Your task to perform on an android device: Open calendar and show me the first week of next month Image 0: 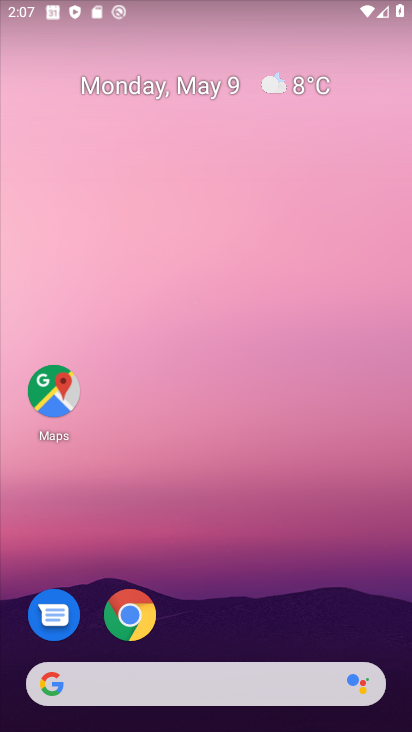
Step 0: drag from (251, 568) to (221, 148)
Your task to perform on an android device: Open calendar and show me the first week of next month Image 1: 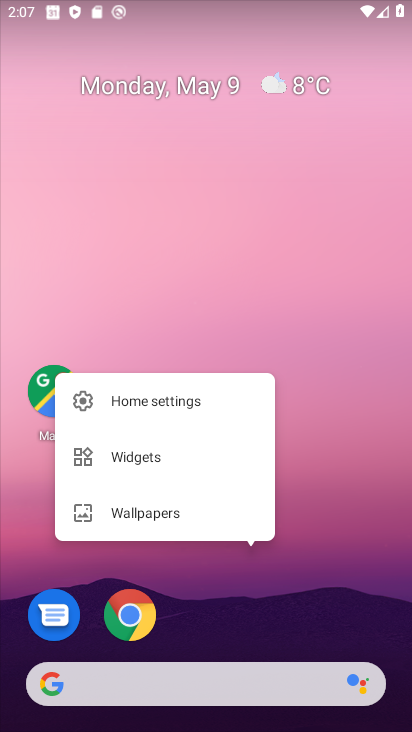
Step 1: click (250, 588)
Your task to perform on an android device: Open calendar and show me the first week of next month Image 2: 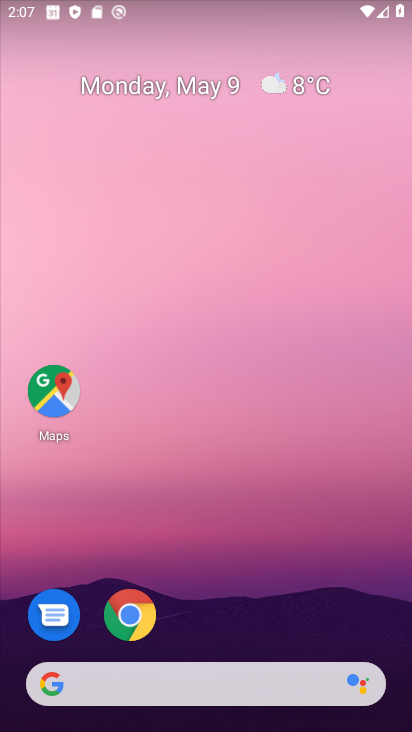
Step 2: click (250, 588)
Your task to perform on an android device: Open calendar and show me the first week of next month Image 3: 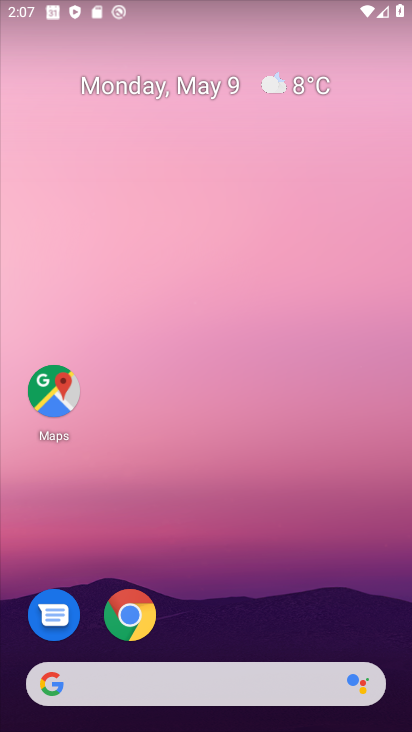
Step 3: drag from (250, 588) to (235, 3)
Your task to perform on an android device: Open calendar and show me the first week of next month Image 4: 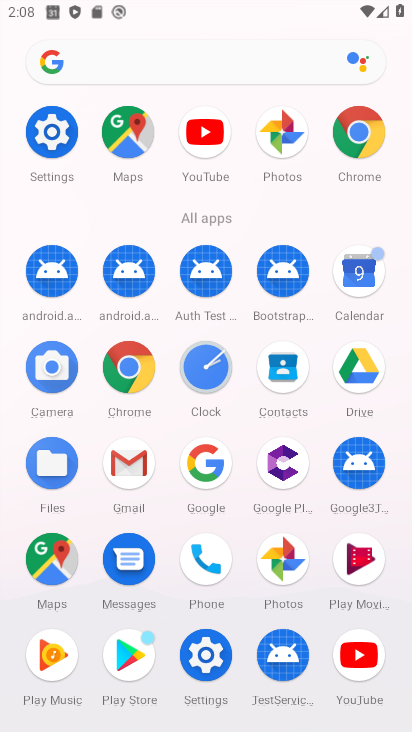
Step 4: click (351, 277)
Your task to perform on an android device: Open calendar and show me the first week of next month Image 5: 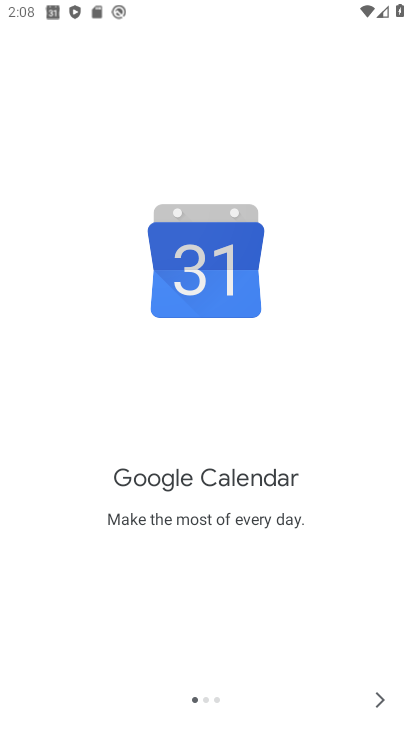
Step 5: click (381, 701)
Your task to perform on an android device: Open calendar and show me the first week of next month Image 6: 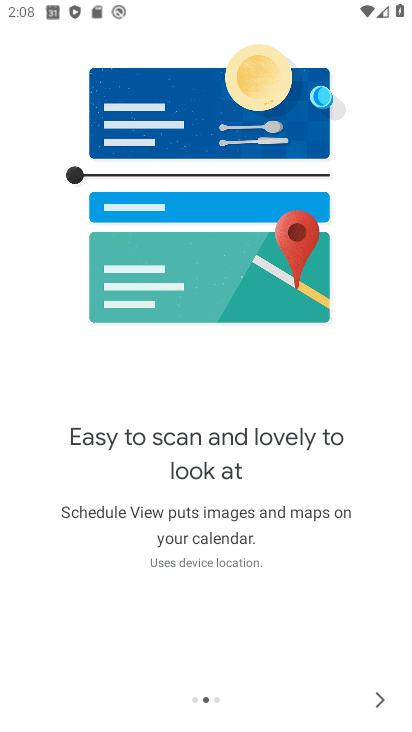
Step 6: click (381, 701)
Your task to perform on an android device: Open calendar and show me the first week of next month Image 7: 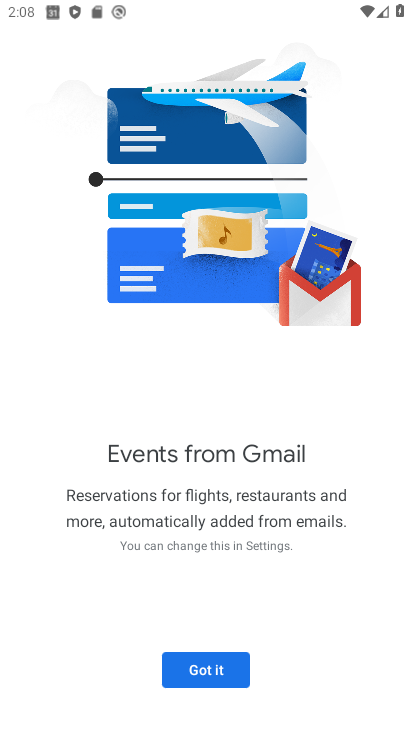
Step 7: click (217, 681)
Your task to perform on an android device: Open calendar and show me the first week of next month Image 8: 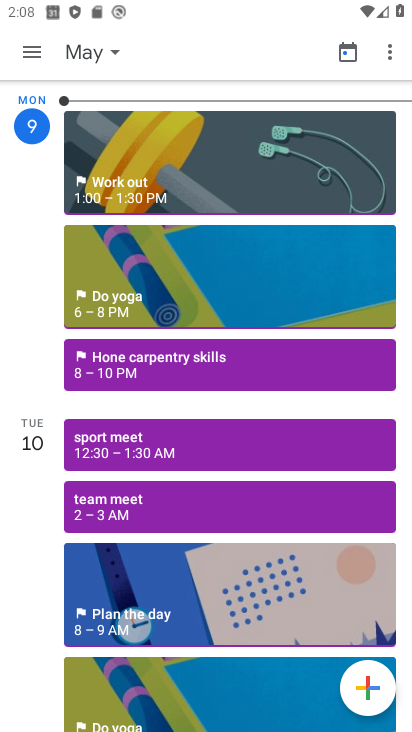
Step 8: click (43, 50)
Your task to perform on an android device: Open calendar and show me the first week of next month Image 9: 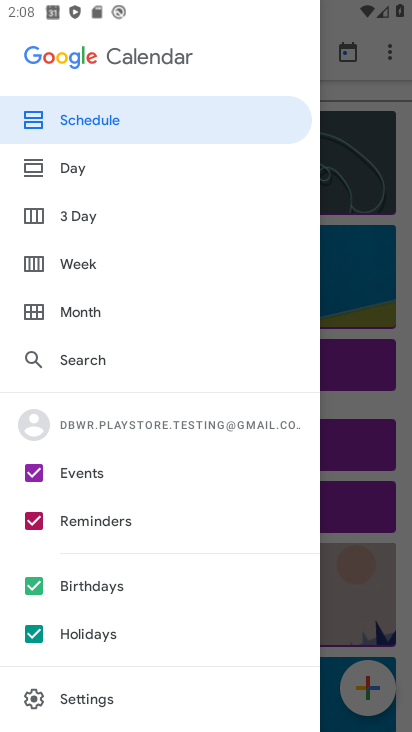
Step 9: click (49, 261)
Your task to perform on an android device: Open calendar and show me the first week of next month Image 10: 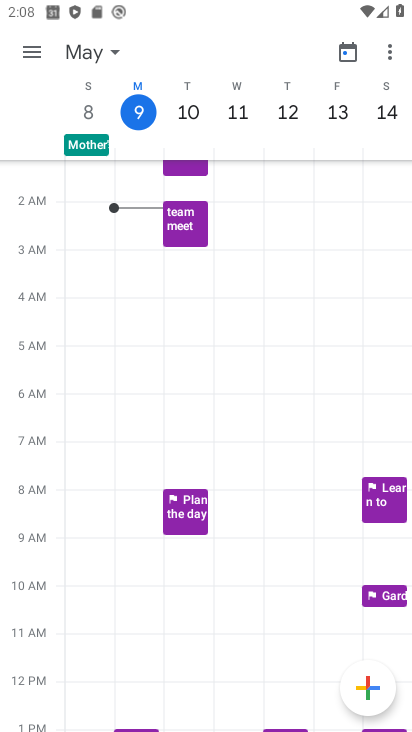
Step 10: click (90, 56)
Your task to perform on an android device: Open calendar and show me the first week of next month Image 11: 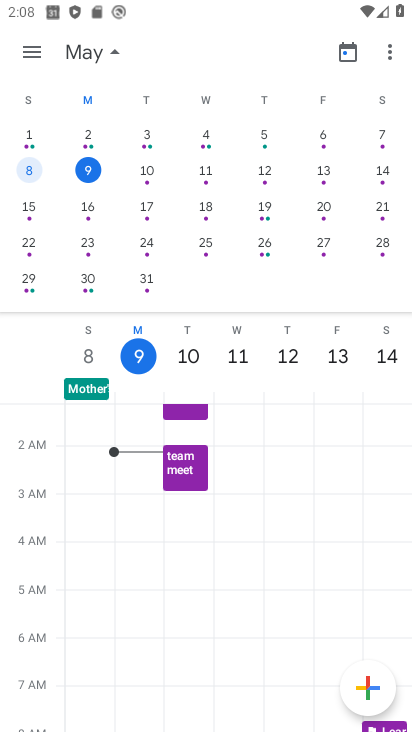
Step 11: drag from (309, 216) to (53, 208)
Your task to perform on an android device: Open calendar and show me the first week of next month Image 12: 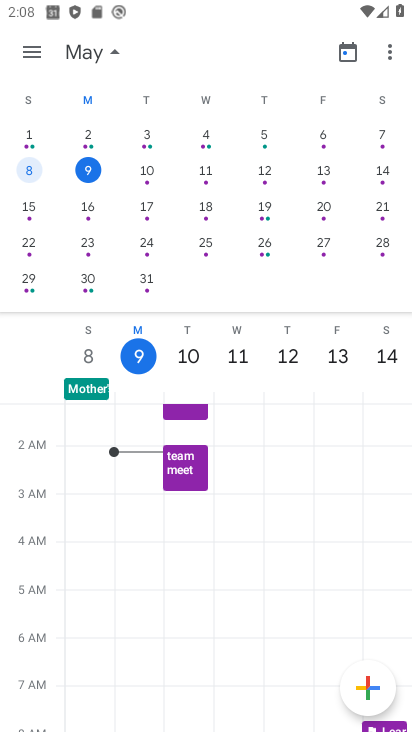
Step 12: drag from (321, 212) to (28, 141)
Your task to perform on an android device: Open calendar and show me the first week of next month Image 13: 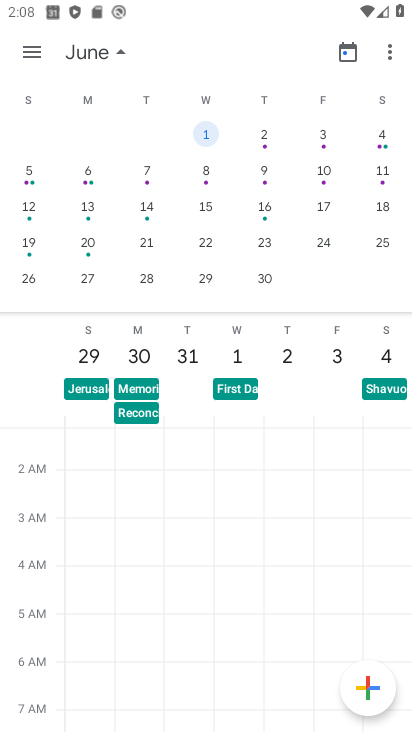
Step 13: click (257, 131)
Your task to perform on an android device: Open calendar and show me the first week of next month Image 14: 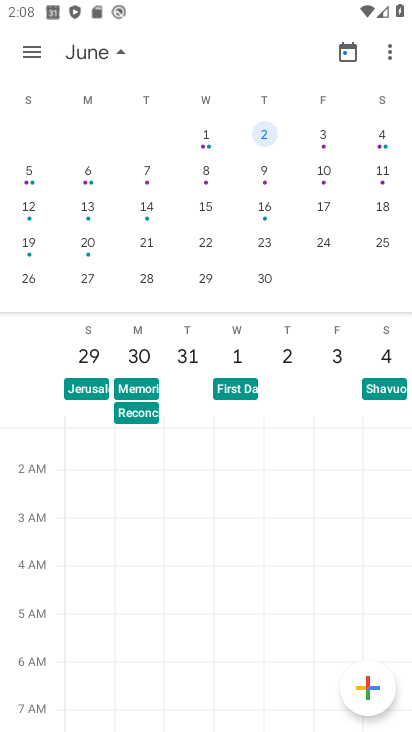
Step 14: task complete